Your task to perform on an android device: Go to Reddit.com Image 0: 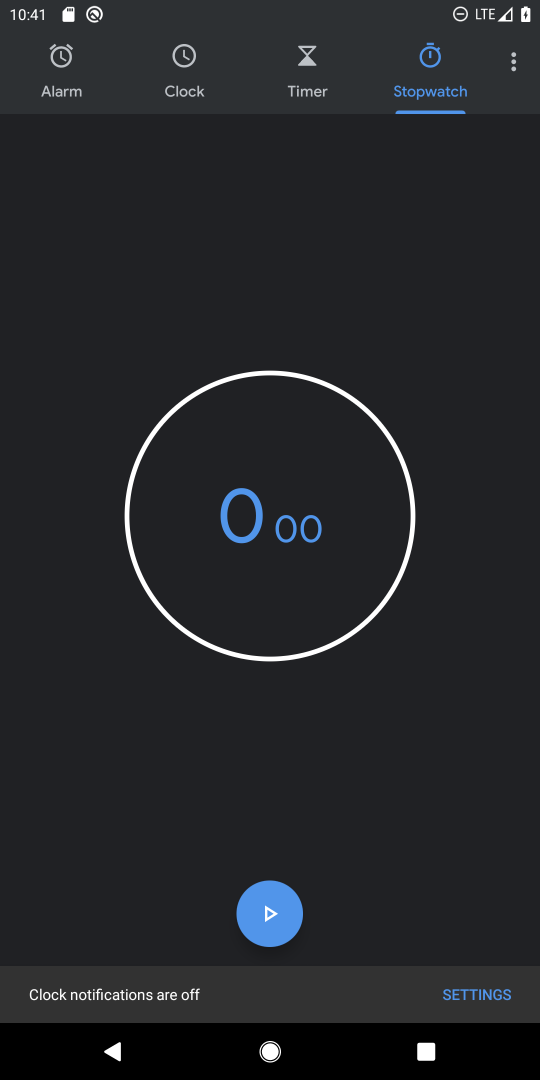
Step 0: press home button
Your task to perform on an android device: Go to Reddit.com Image 1: 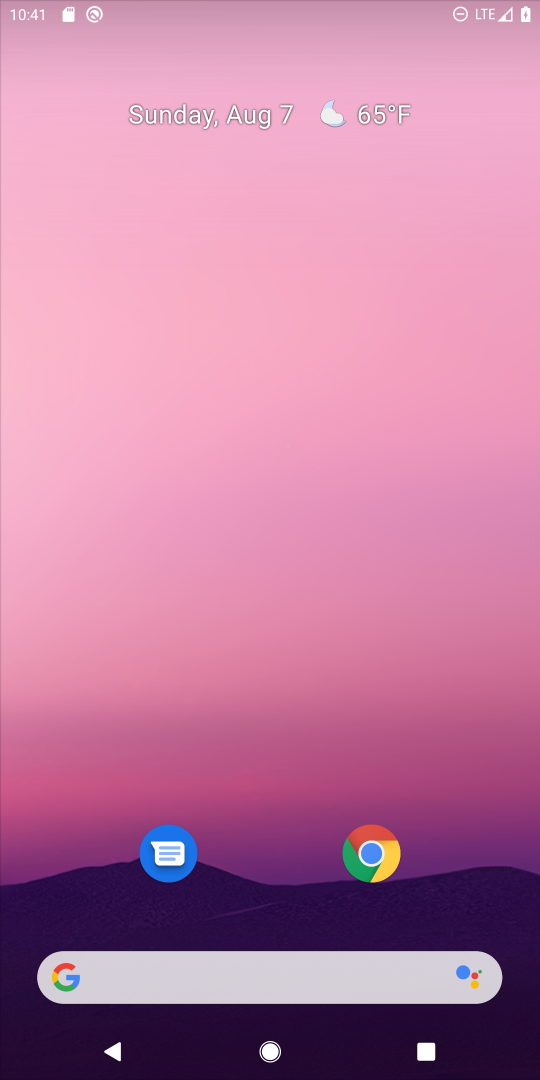
Step 1: drag from (254, 925) to (267, 244)
Your task to perform on an android device: Go to Reddit.com Image 2: 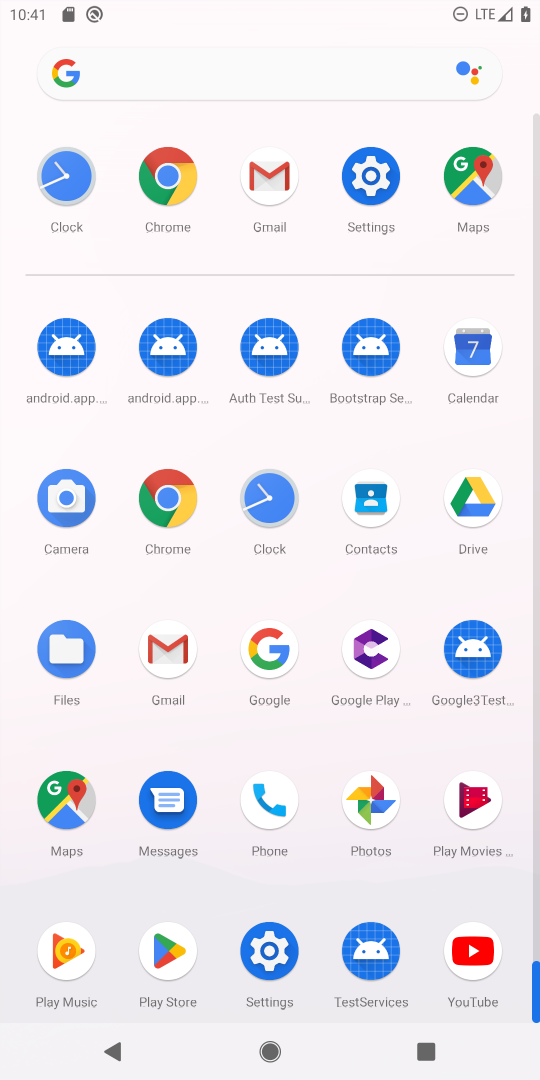
Step 2: click (166, 172)
Your task to perform on an android device: Go to Reddit.com Image 3: 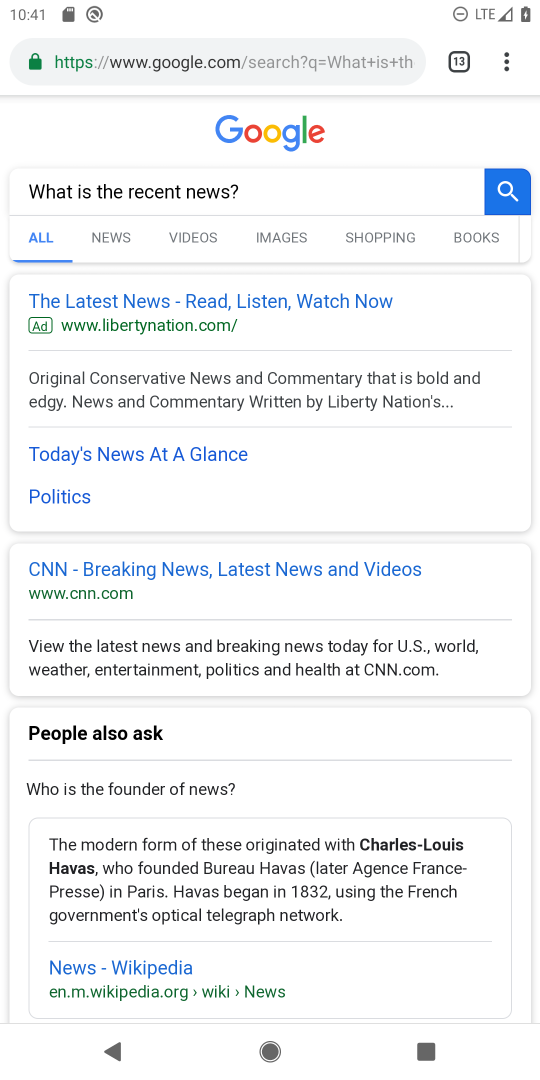
Step 3: click (499, 62)
Your task to perform on an android device: Go to Reddit.com Image 4: 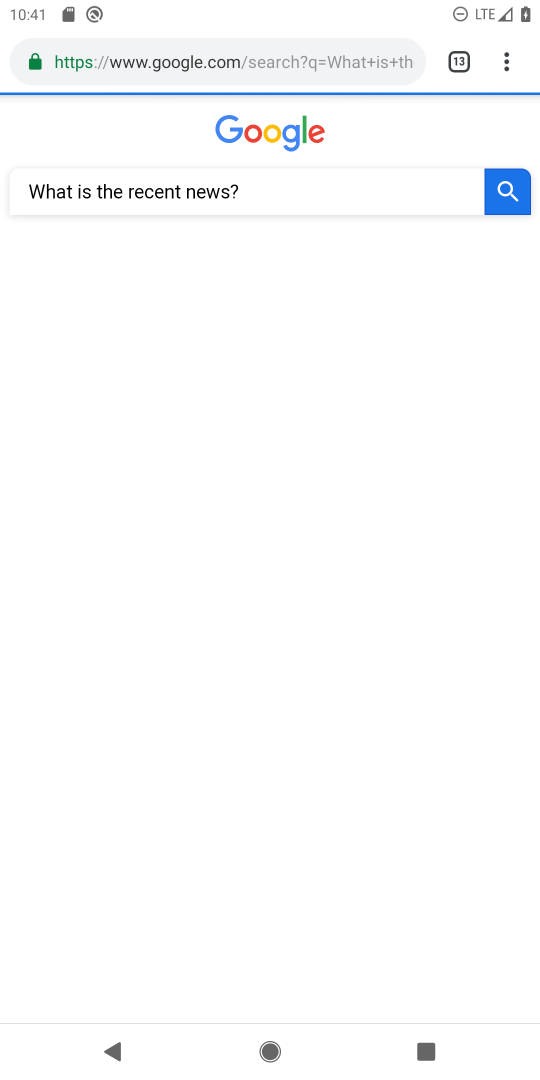
Step 4: click (507, 67)
Your task to perform on an android device: Go to Reddit.com Image 5: 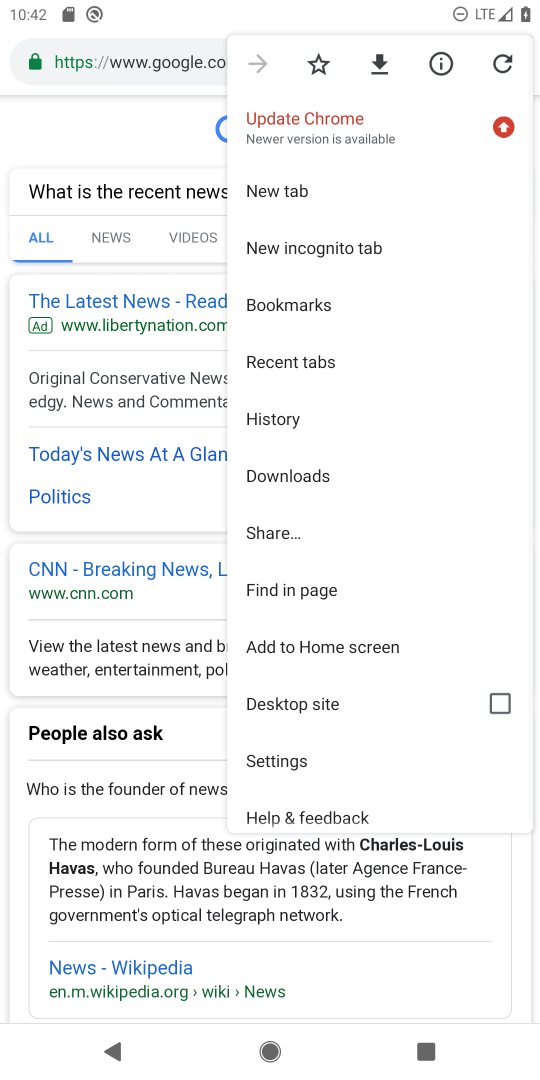
Step 5: click (283, 200)
Your task to perform on an android device: Go to Reddit.com Image 6: 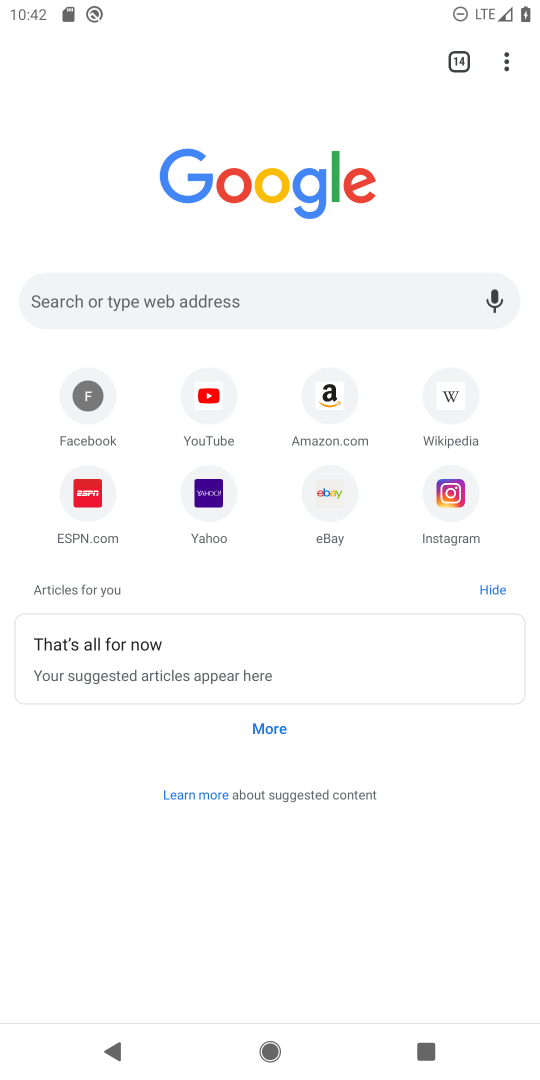
Step 6: click (335, 309)
Your task to perform on an android device: Go to Reddit.com Image 7: 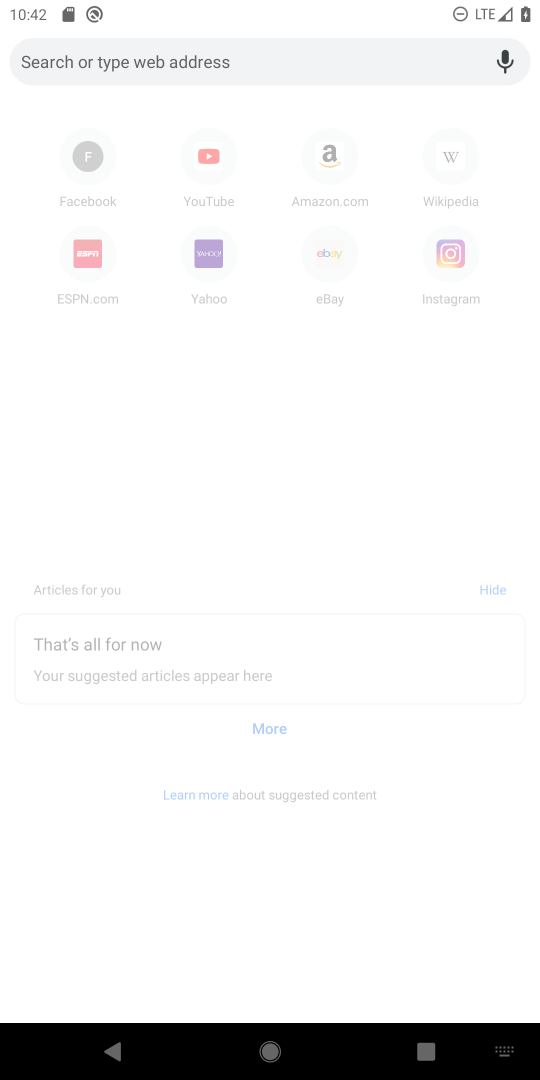
Step 7: type "Reddit.com "
Your task to perform on an android device: Go to Reddit.com Image 8: 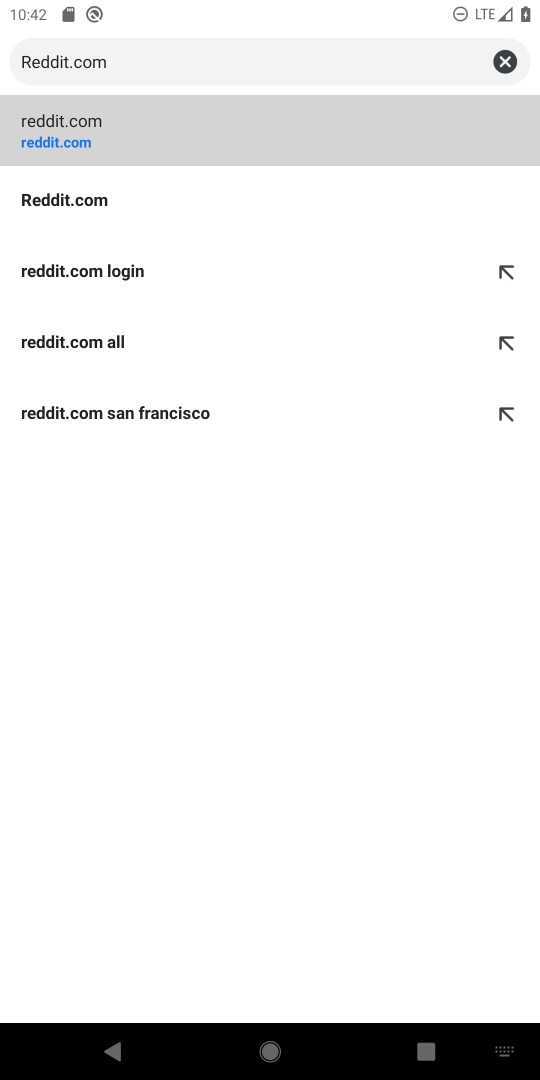
Step 8: click (132, 103)
Your task to perform on an android device: Go to Reddit.com Image 9: 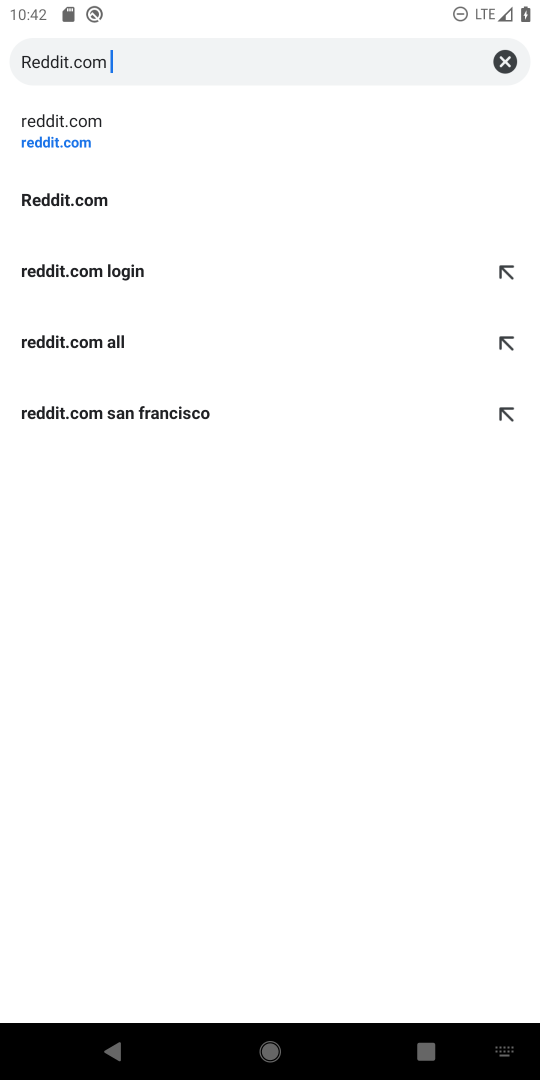
Step 9: click (113, 124)
Your task to perform on an android device: Go to Reddit.com Image 10: 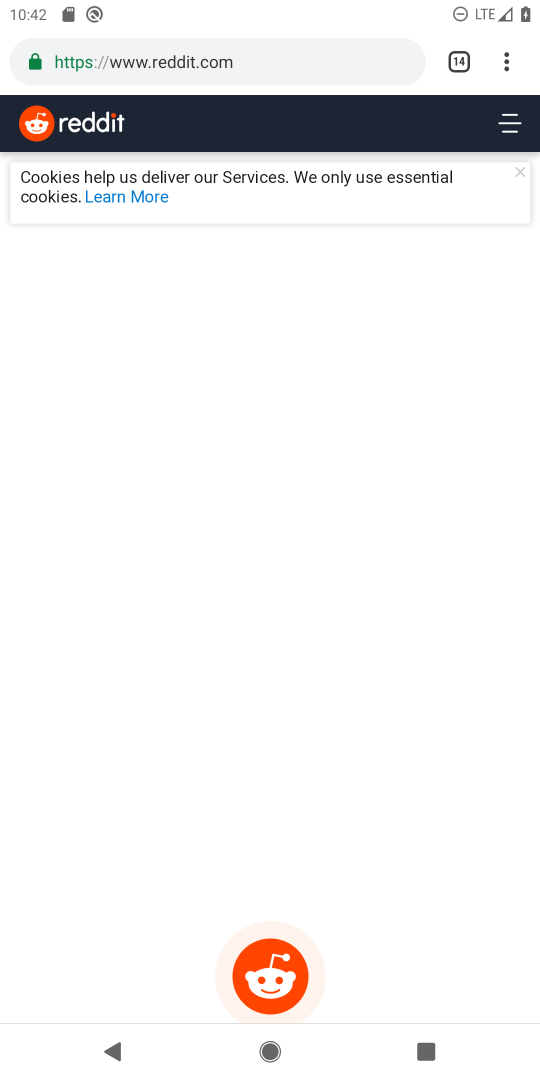
Step 10: task complete